Your task to perform on an android device: Open notification settings Image 0: 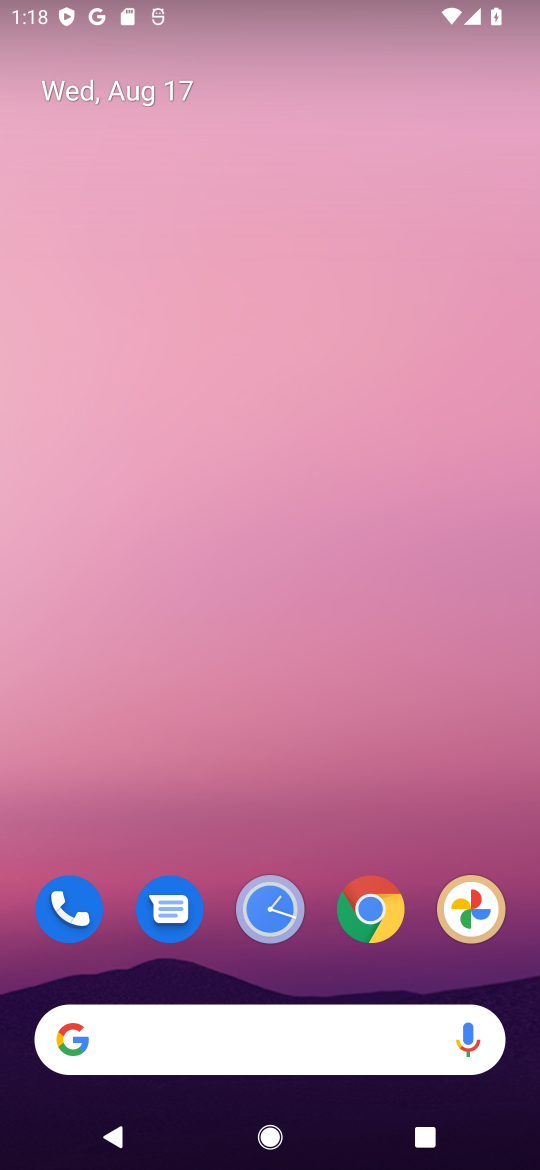
Step 0: drag from (318, 814) to (208, 187)
Your task to perform on an android device: Open notification settings Image 1: 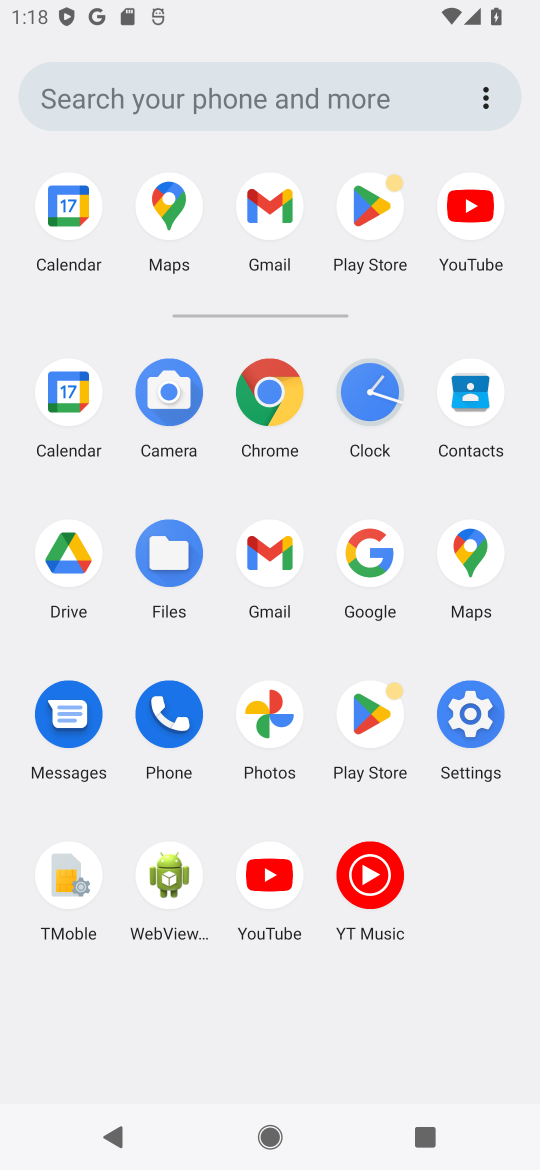
Step 1: click (465, 715)
Your task to perform on an android device: Open notification settings Image 2: 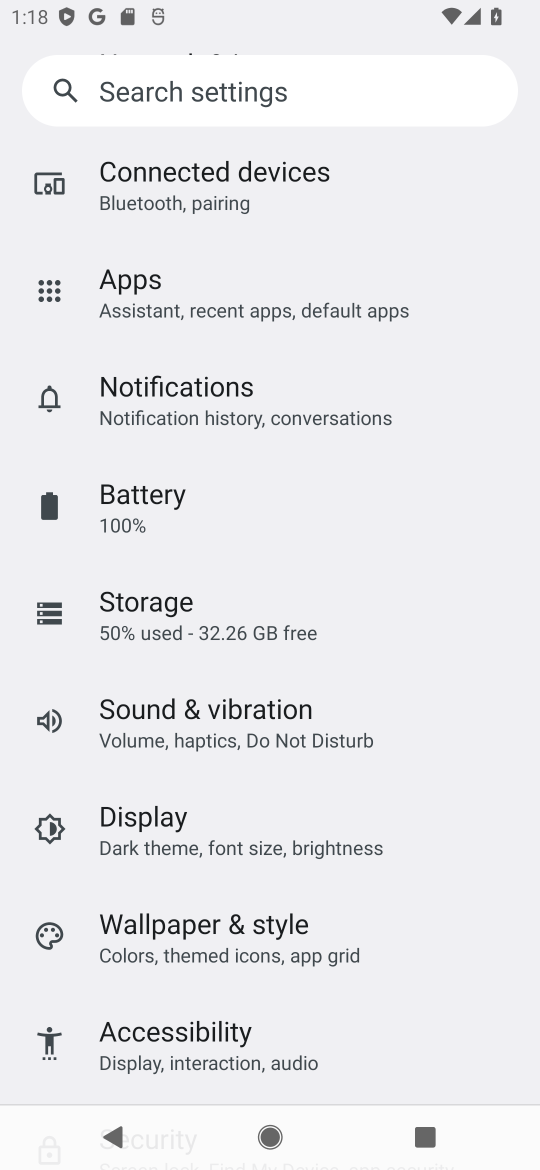
Step 2: click (191, 387)
Your task to perform on an android device: Open notification settings Image 3: 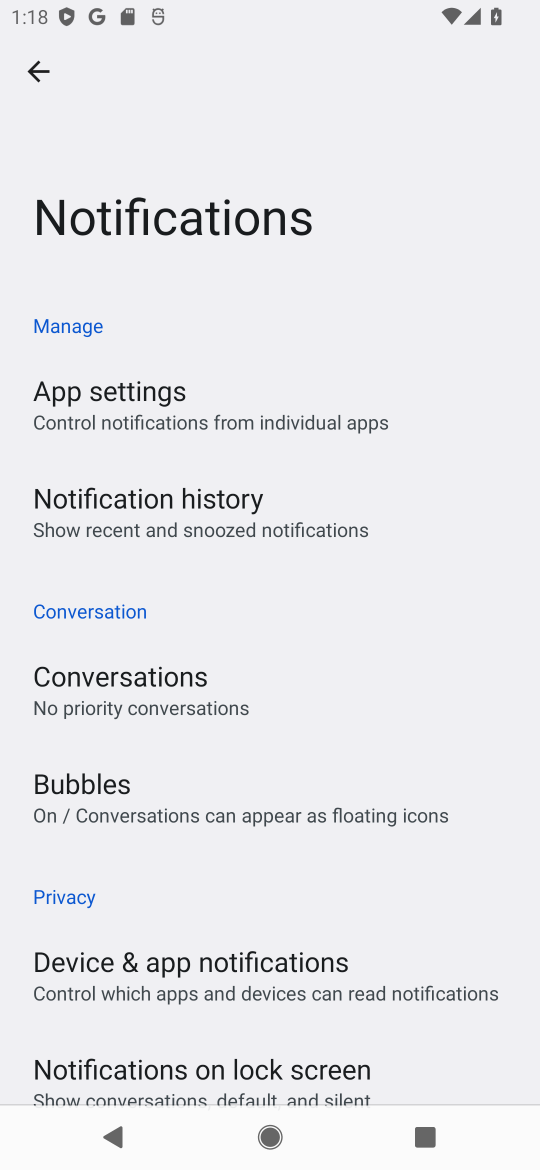
Step 3: task complete